Your task to perform on an android device: Play the last video I watched on Youtube Image 0: 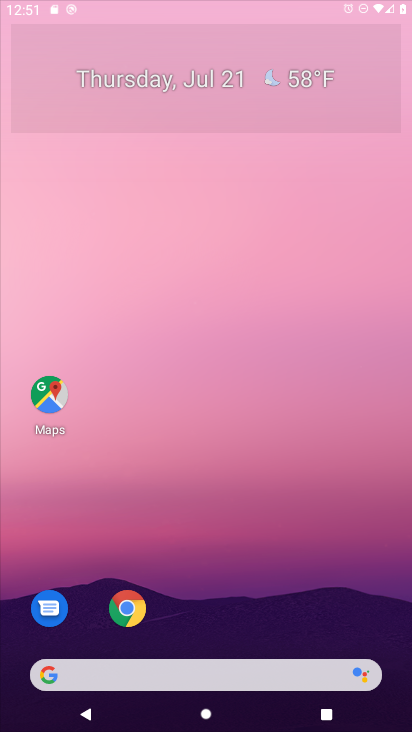
Step 0: press home button
Your task to perform on an android device: Play the last video I watched on Youtube Image 1: 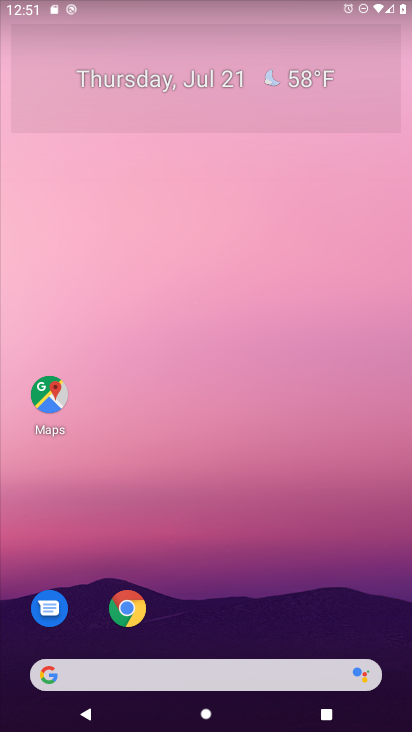
Step 1: drag from (233, 631) to (293, 140)
Your task to perform on an android device: Play the last video I watched on Youtube Image 2: 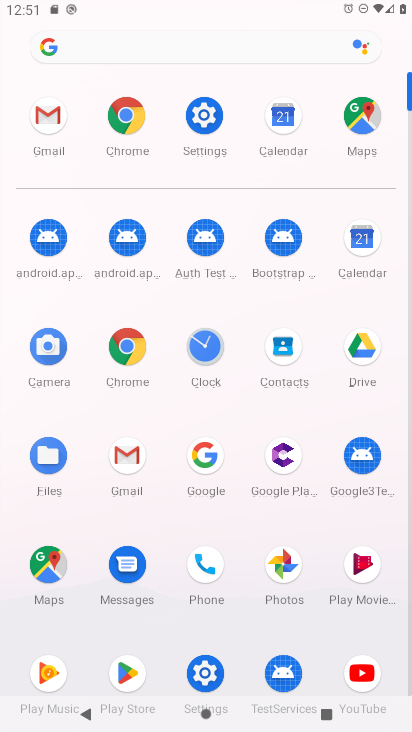
Step 2: click (357, 677)
Your task to perform on an android device: Play the last video I watched on Youtube Image 3: 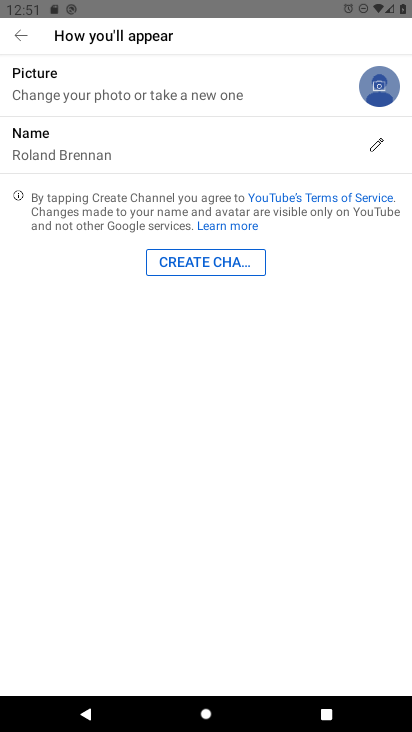
Step 3: click (20, 32)
Your task to perform on an android device: Play the last video I watched on Youtube Image 4: 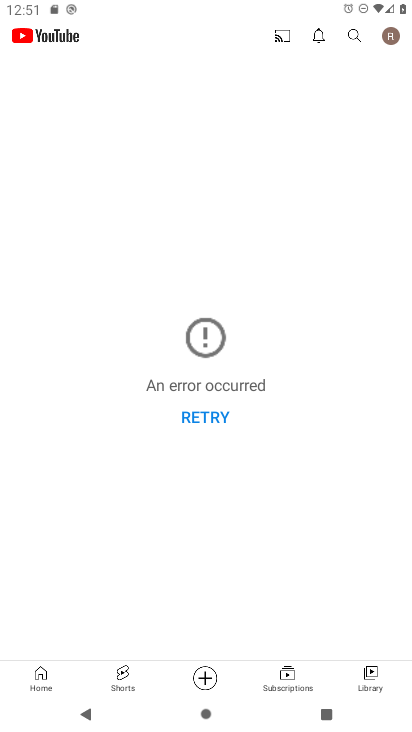
Step 4: click (208, 416)
Your task to perform on an android device: Play the last video I watched on Youtube Image 5: 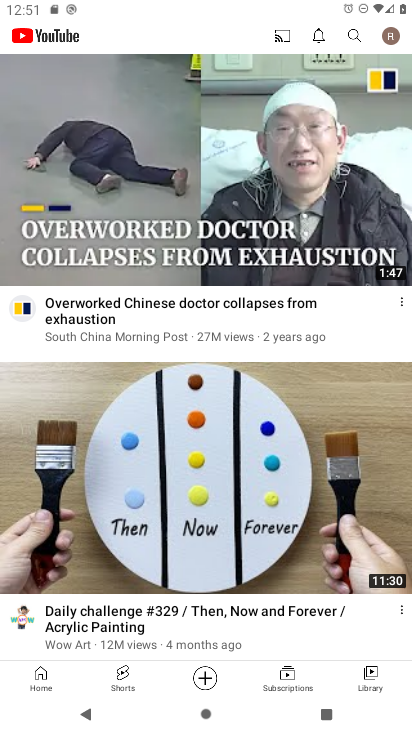
Step 5: click (375, 671)
Your task to perform on an android device: Play the last video I watched on Youtube Image 6: 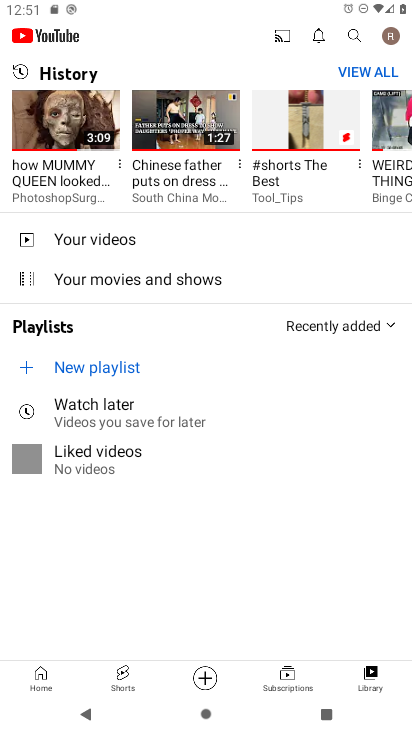
Step 6: click (51, 135)
Your task to perform on an android device: Play the last video I watched on Youtube Image 7: 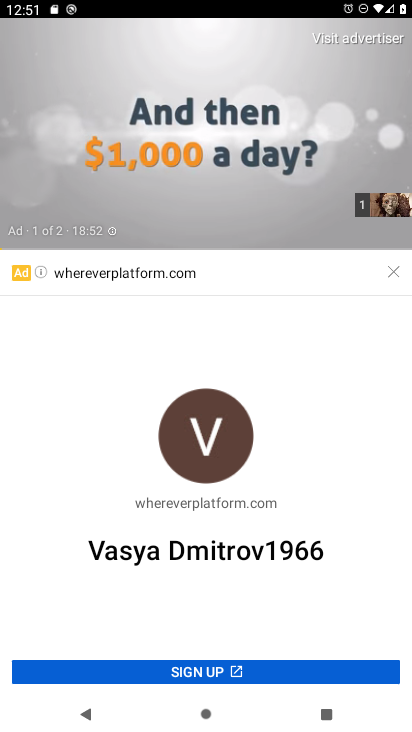
Step 7: click (392, 268)
Your task to perform on an android device: Play the last video I watched on Youtube Image 8: 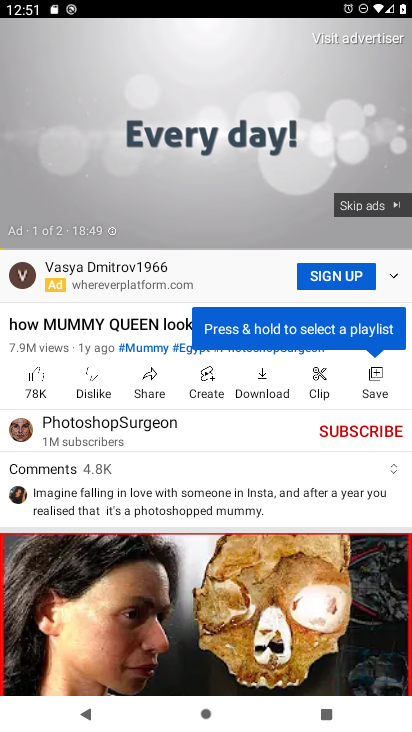
Step 8: click (359, 198)
Your task to perform on an android device: Play the last video I watched on Youtube Image 9: 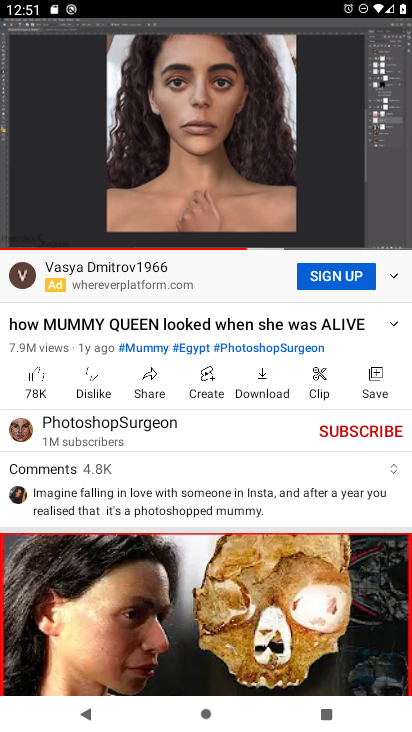
Step 9: task complete